Your task to perform on an android device: Open Google Image 0: 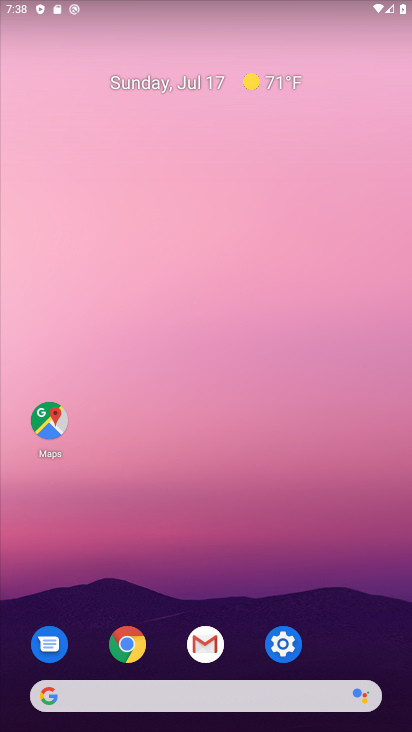
Step 0: click (176, 703)
Your task to perform on an android device: Open Google Image 1: 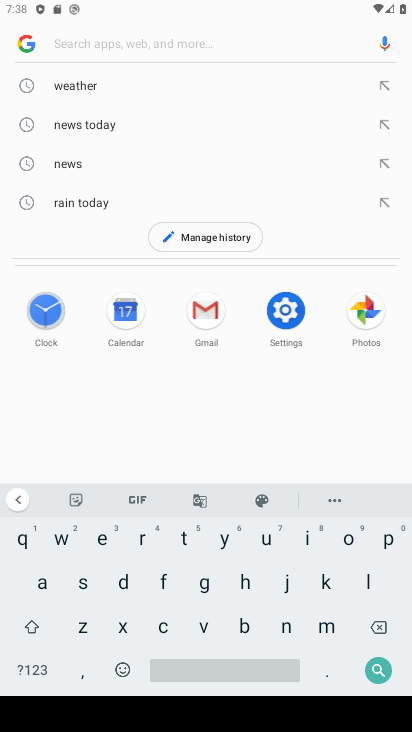
Step 1: click (33, 51)
Your task to perform on an android device: Open Google Image 2: 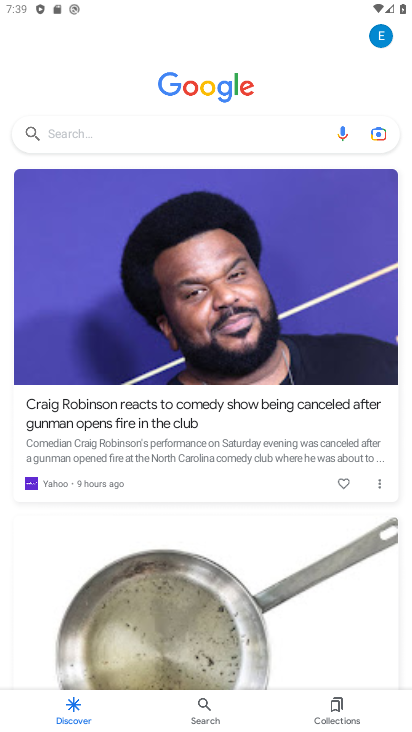
Step 2: task complete